Your task to perform on an android device: turn on improve location accuracy Image 0: 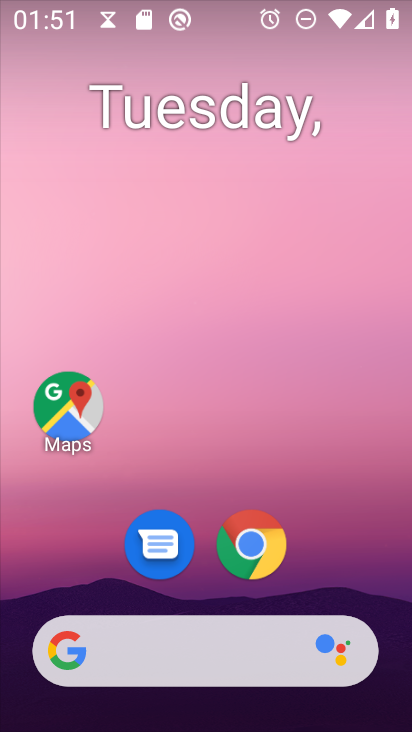
Step 0: drag from (297, 603) to (309, 52)
Your task to perform on an android device: turn on improve location accuracy Image 1: 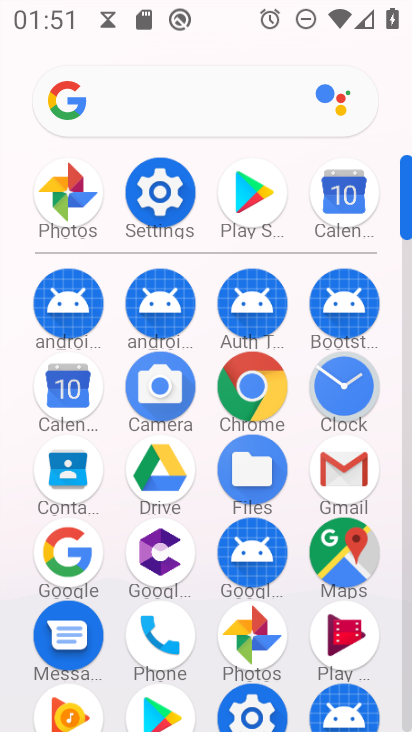
Step 1: click (177, 183)
Your task to perform on an android device: turn on improve location accuracy Image 2: 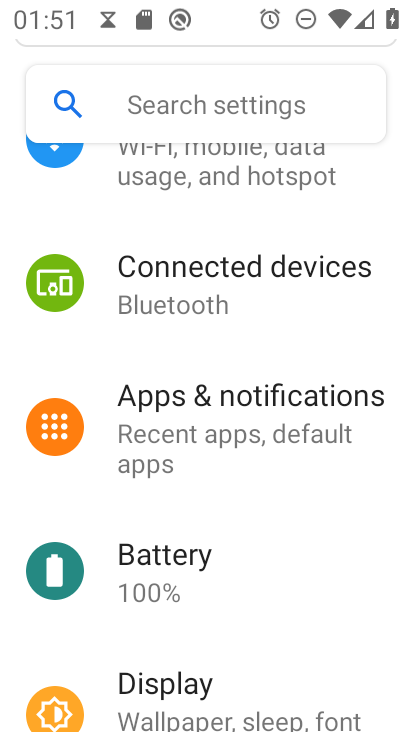
Step 2: drag from (127, 564) to (131, 276)
Your task to perform on an android device: turn on improve location accuracy Image 3: 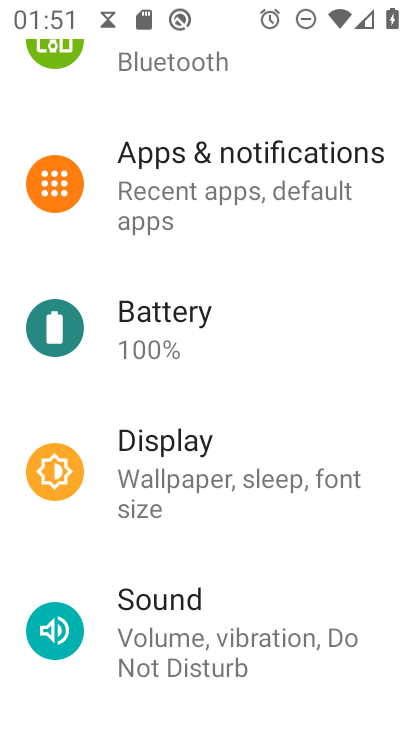
Step 3: drag from (165, 679) to (230, 299)
Your task to perform on an android device: turn on improve location accuracy Image 4: 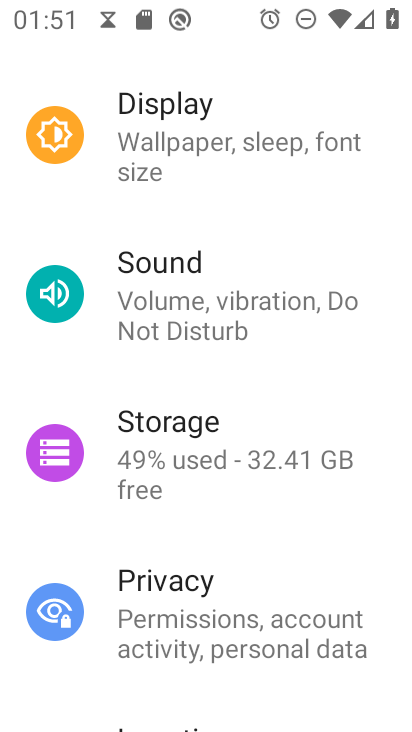
Step 4: drag from (225, 601) to (263, 238)
Your task to perform on an android device: turn on improve location accuracy Image 5: 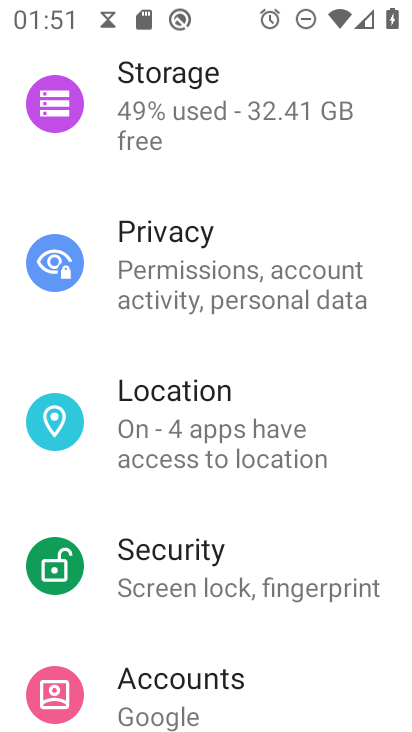
Step 5: click (264, 459)
Your task to perform on an android device: turn on improve location accuracy Image 6: 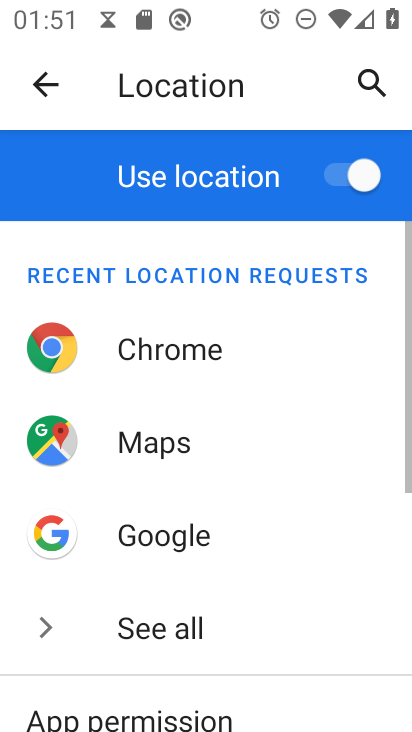
Step 6: drag from (216, 651) to (313, 250)
Your task to perform on an android device: turn on improve location accuracy Image 7: 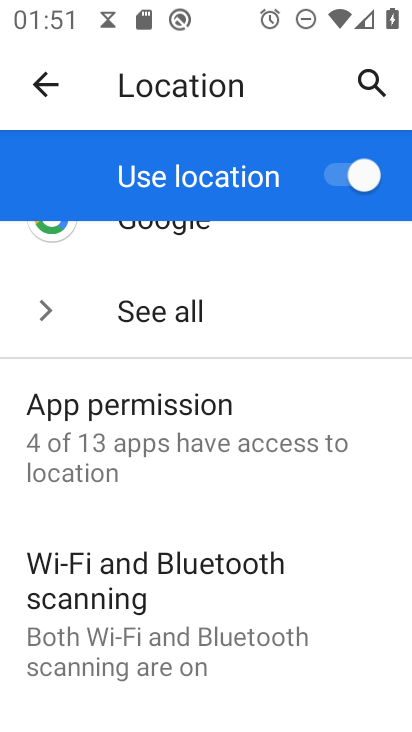
Step 7: drag from (197, 591) to (251, 228)
Your task to perform on an android device: turn on improve location accuracy Image 8: 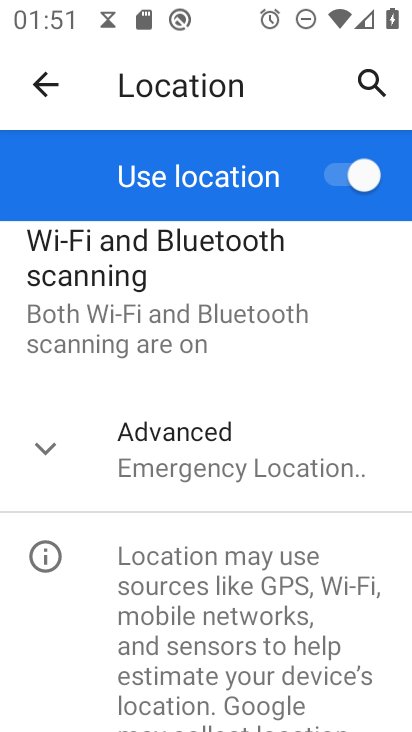
Step 8: click (195, 470)
Your task to perform on an android device: turn on improve location accuracy Image 9: 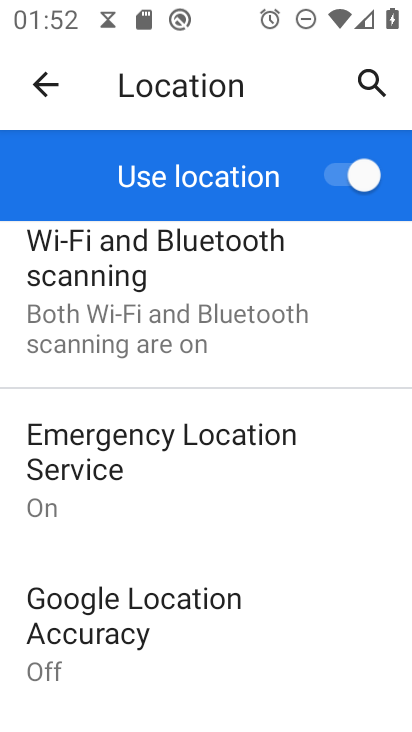
Step 9: click (151, 664)
Your task to perform on an android device: turn on improve location accuracy Image 10: 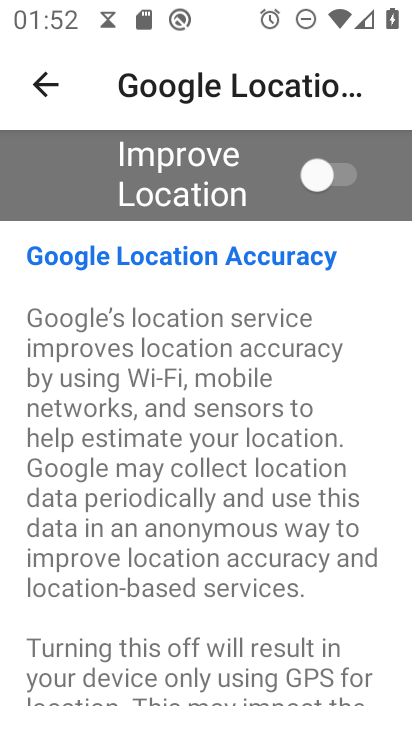
Step 10: click (330, 175)
Your task to perform on an android device: turn on improve location accuracy Image 11: 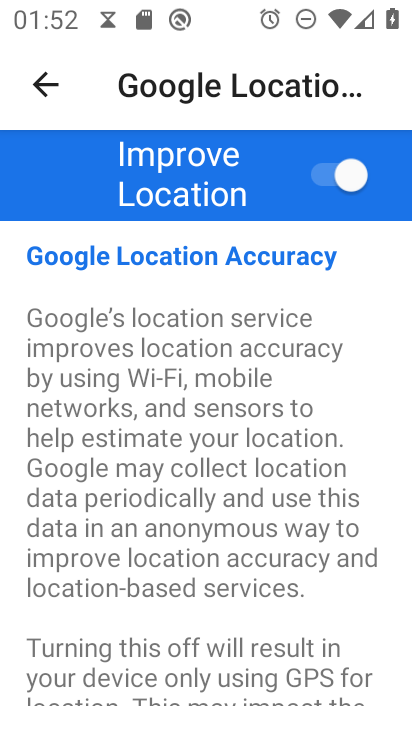
Step 11: task complete